Your task to perform on an android device: Search for the new Nike Air Jordan 33 on Nike.com Image 0: 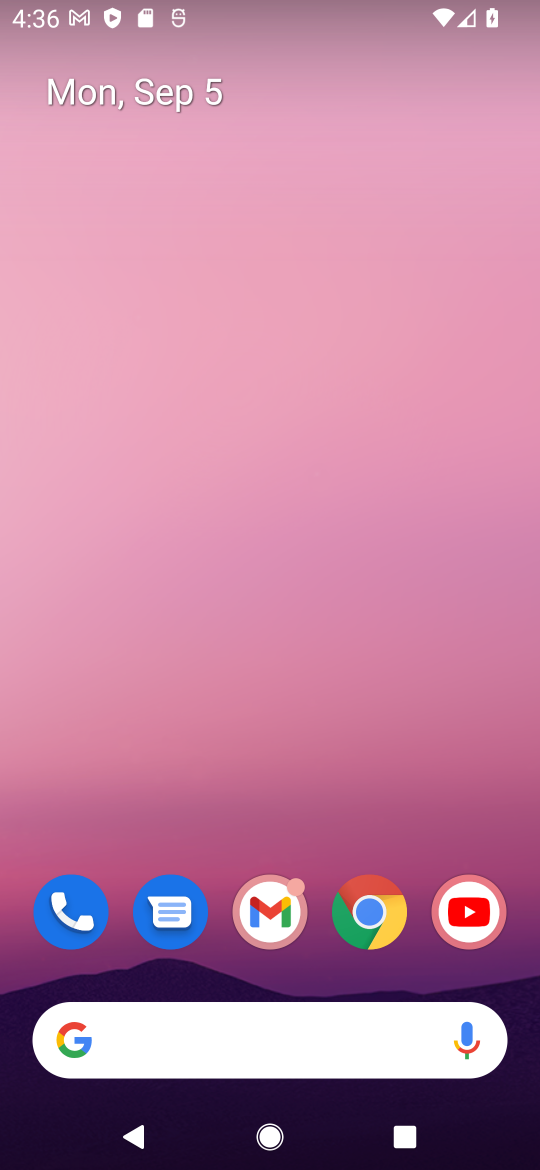
Step 0: click (365, 917)
Your task to perform on an android device: Search for the new Nike Air Jordan 33 on Nike.com Image 1: 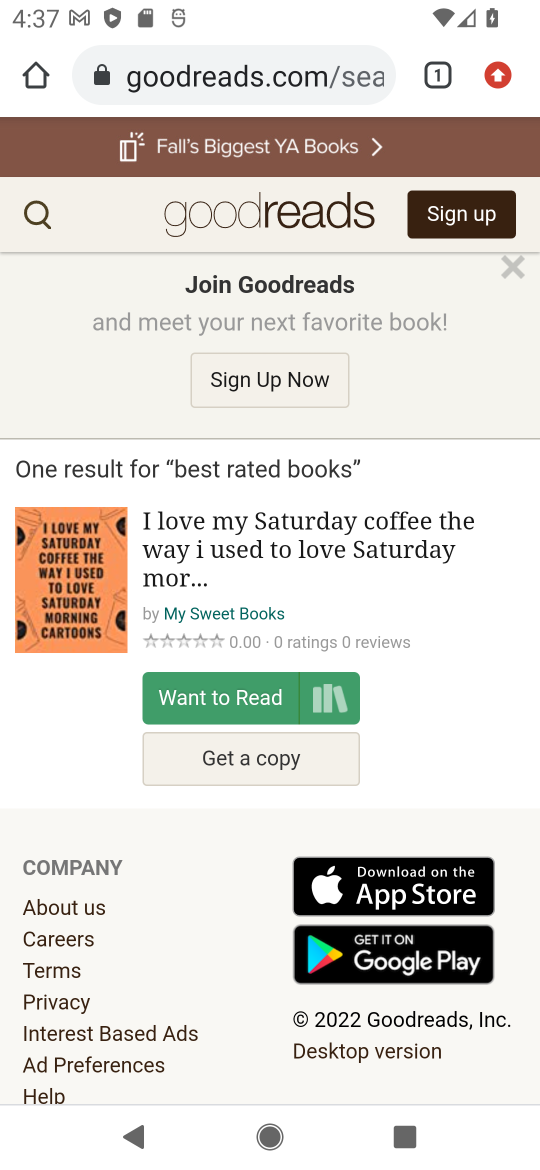
Step 1: click (258, 61)
Your task to perform on an android device: Search for the new Nike Air Jordan 33 on Nike.com Image 2: 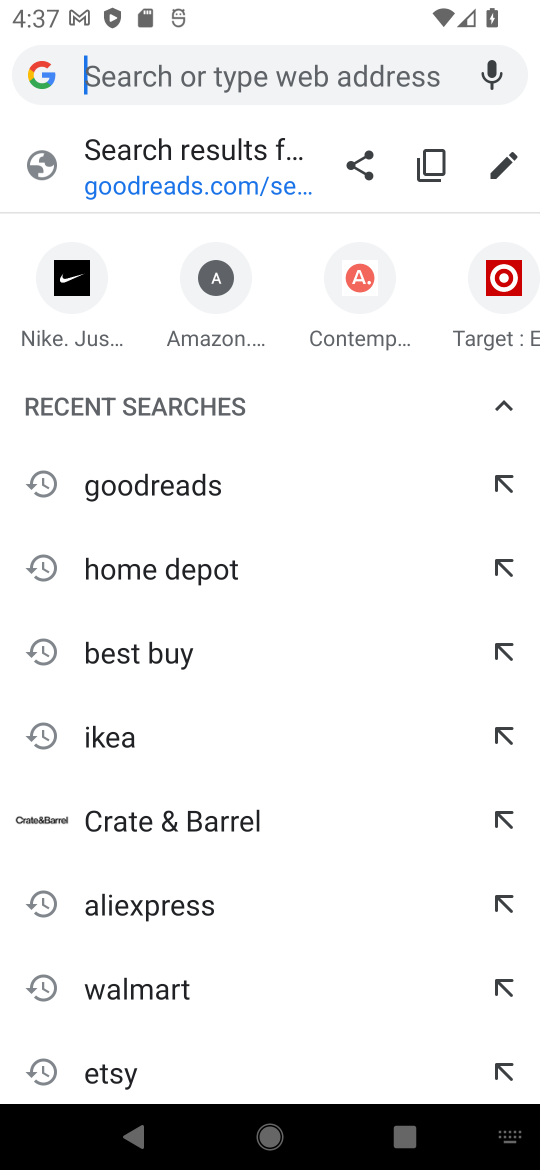
Step 2: type "nike.com"
Your task to perform on an android device: Search for the new Nike Air Jordan 33 on Nike.com Image 3: 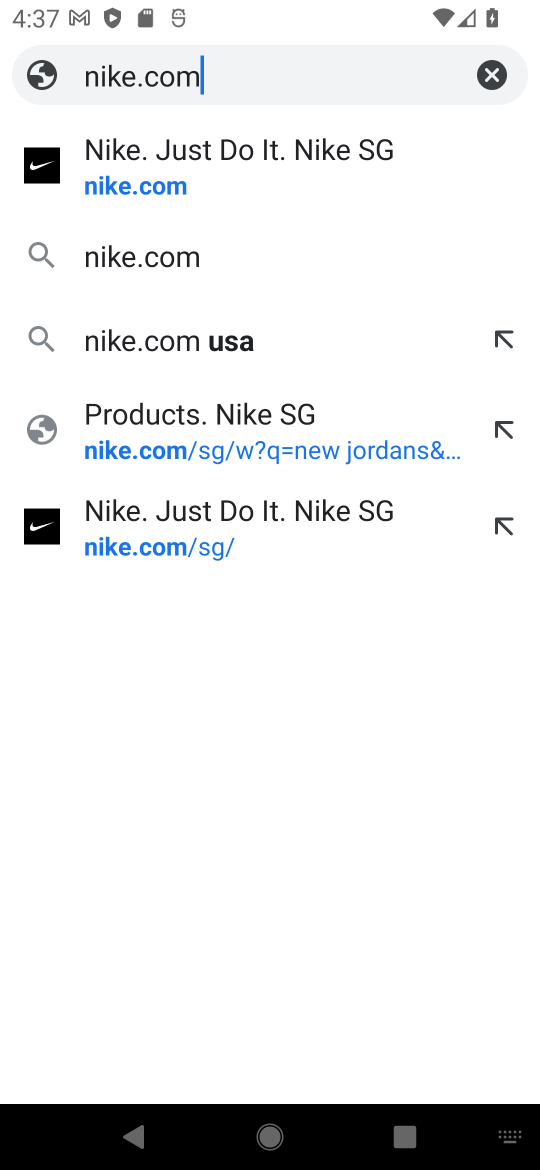
Step 3: press enter
Your task to perform on an android device: Search for the new Nike Air Jordan 33 on Nike.com Image 4: 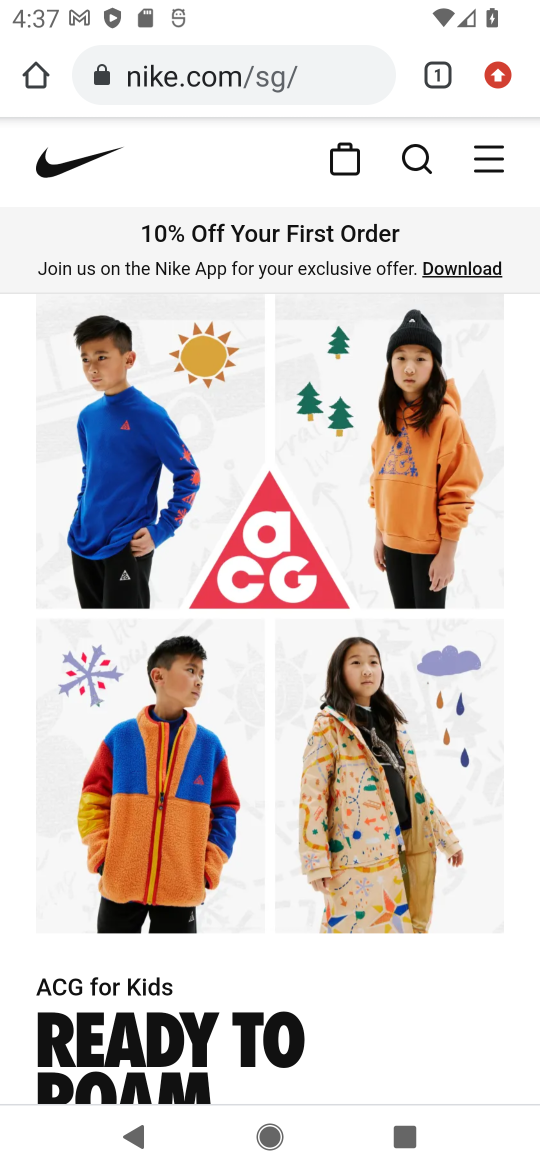
Step 4: click (418, 157)
Your task to perform on an android device: Search for the new Nike Air Jordan 33 on Nike.com Image 5: 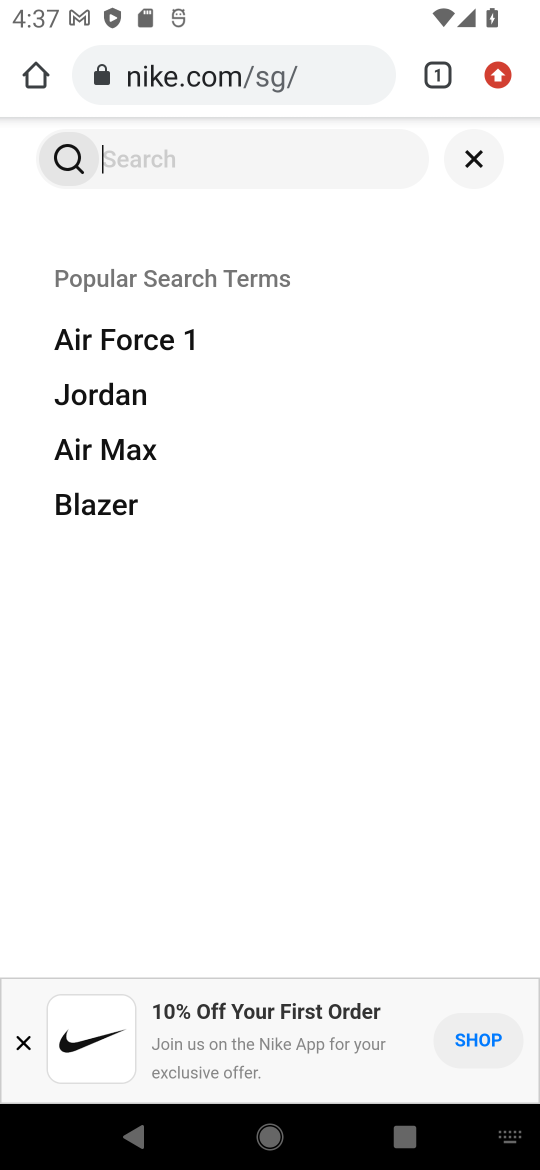
Step 5: type "new nike air jordan 33"
Your task to perform on an android device: Search for the new Nike Air Jordan 33 on Nike.com Image 6: 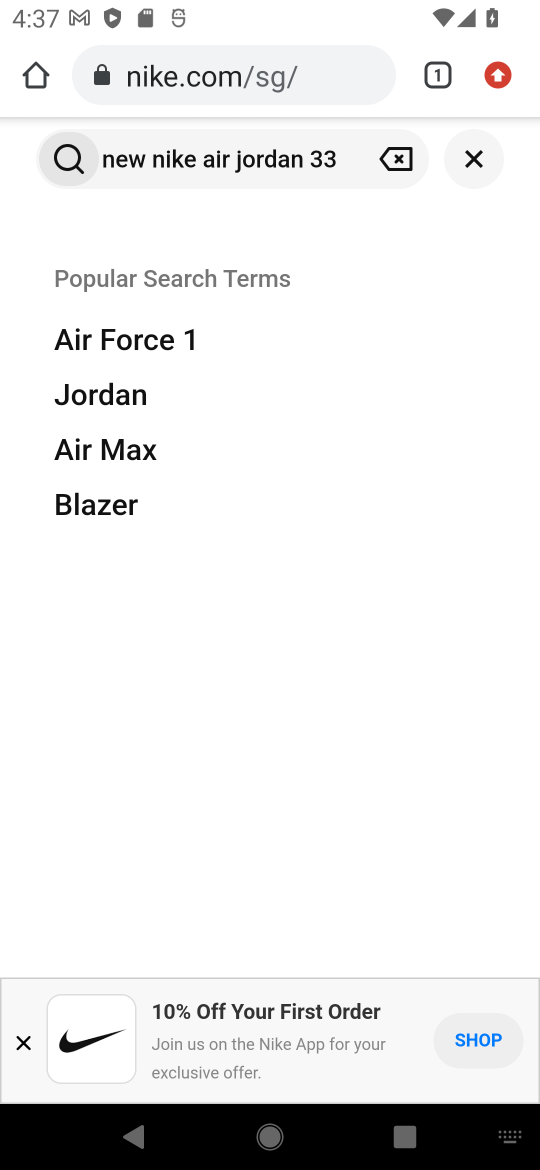
Step 6: press enter
Your task to perform on an android device: Search for the new Nike Air Jordan 33 on Nike.com Image 7: 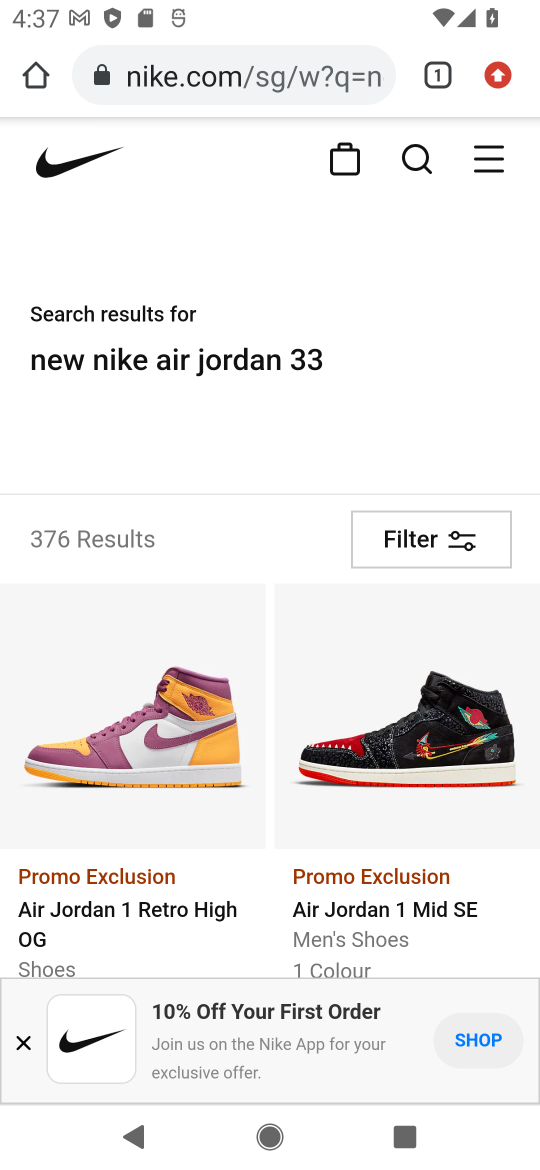
Step 7: task complete